Your task to perform on an android device: stop showing notifications on the lock screen Image 0: 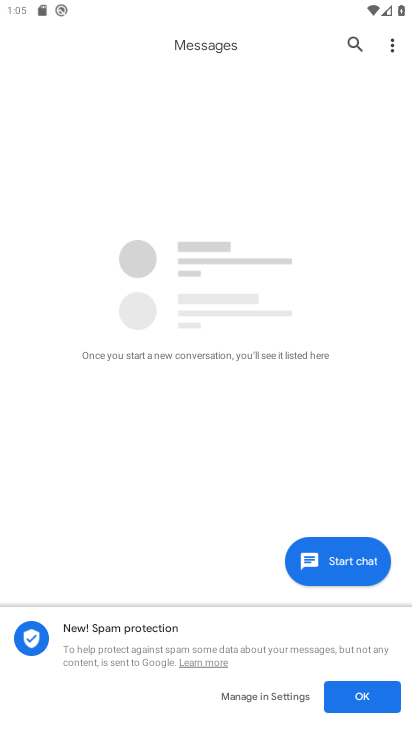
Step 0: press home button
Your task to perform on an android device: stop showing notifications on the lock screen Image 1: 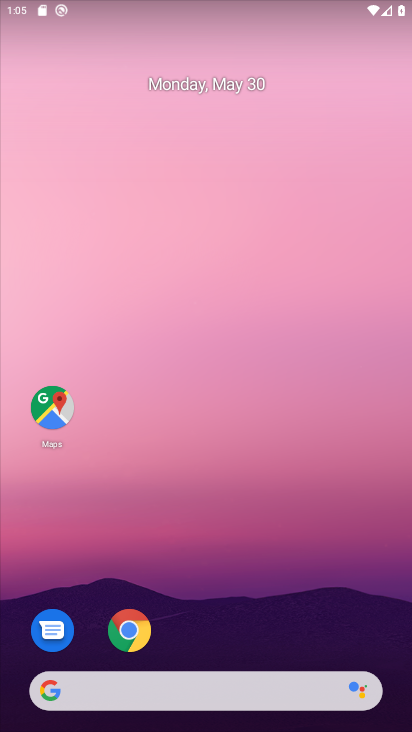
Step 1: drag from (150, 680) to (331, 136)
Your task to perform on an android device: stop showing notifications on the lock screen Image 2: 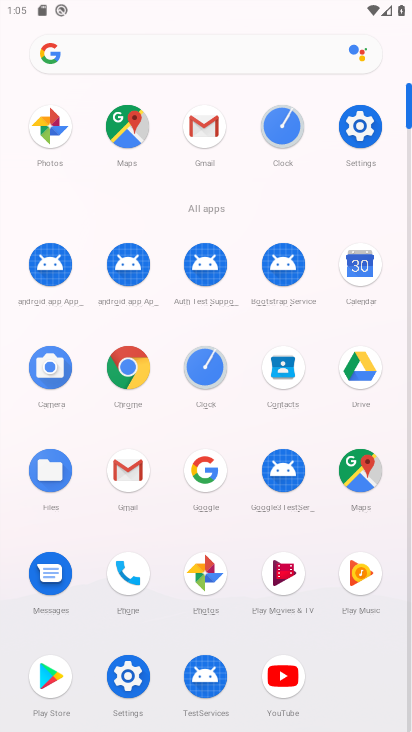
Step 2: click (346, 124)
Your task to perform on an android device: stop showing notifications on the lock screen Image 3: 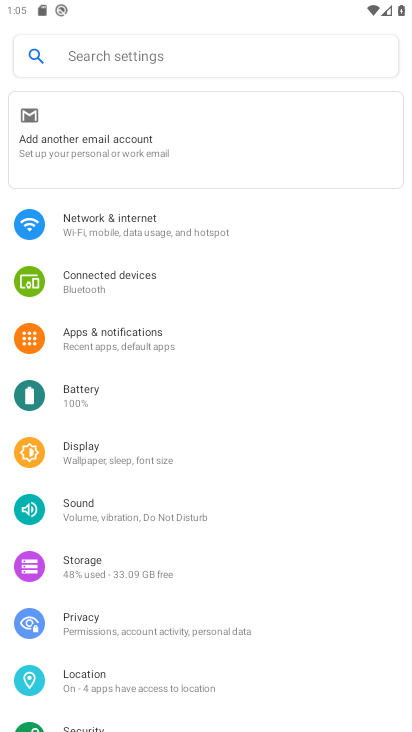
Step 3: click (143, 338)
Your task to perform on an android device: stop showing notifications on the lock screen Image 4: 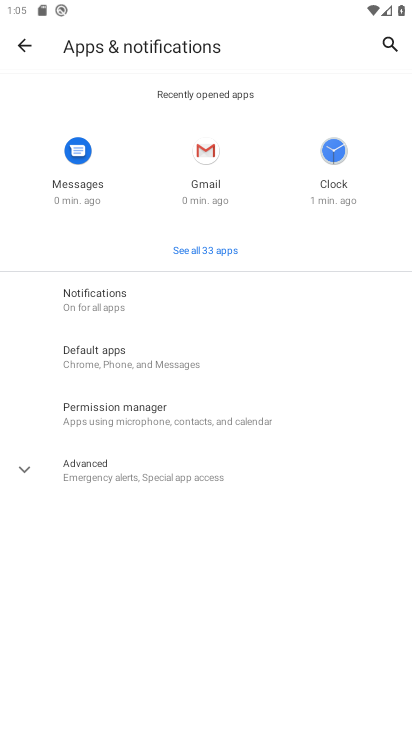
Step 4: click (100, 298)
Your task to perform on an android device: stop showing notifications on the lock screen Image 5: 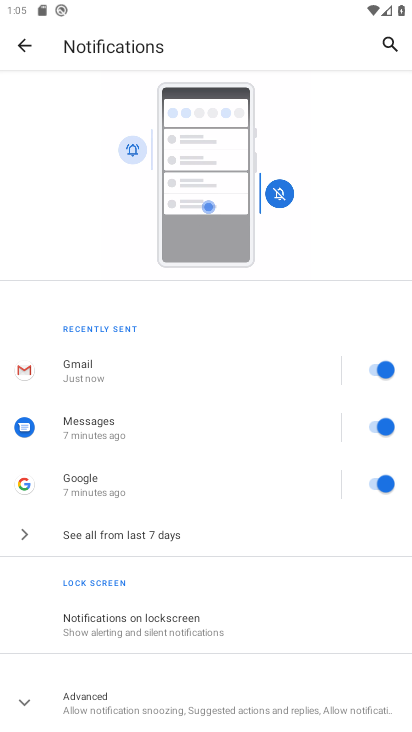
Step 5: click (162, 612)
Your task to perform on an android device: stop showing notifications on the lock screen Image 6: 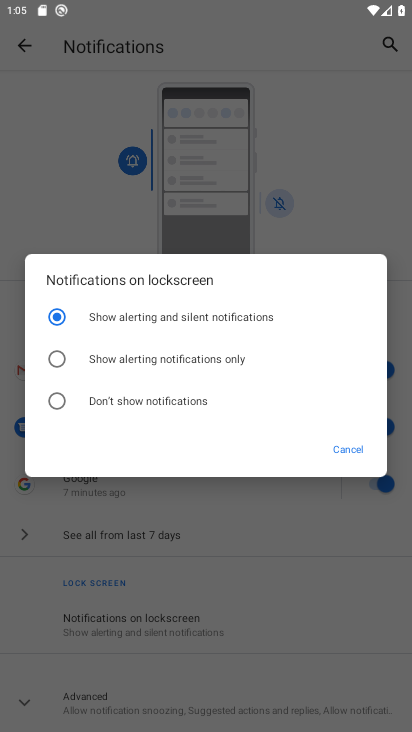
Step 6: click (56, 404)
Your task to perform on an android device: stop showing notifications on the lock screen Image 7: 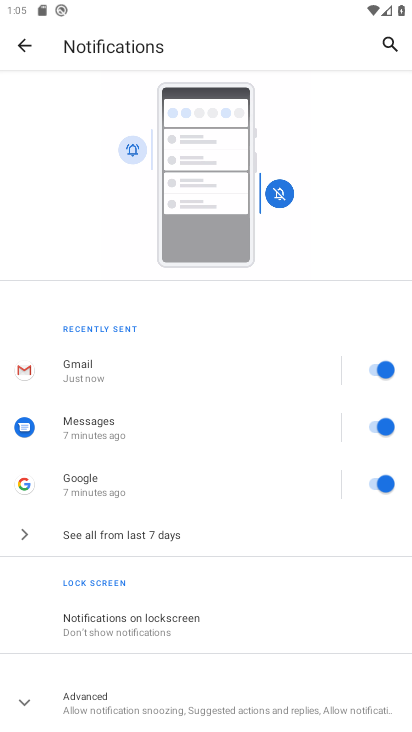
Step 7: task complete